Your task to perform on an android device: turn off picture-in-picture Image 0: 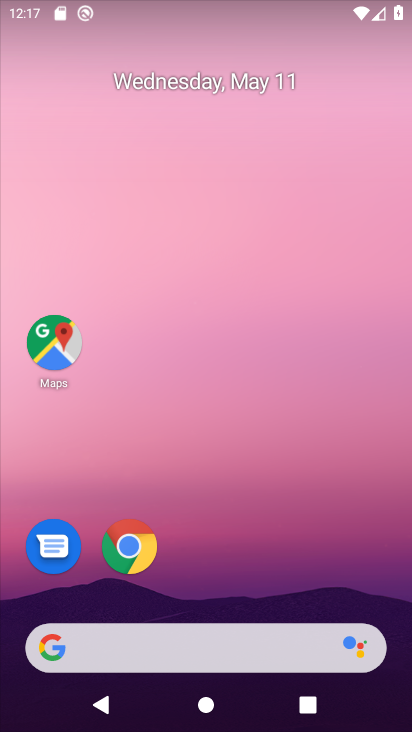
Step 0: drag from (266, 380) to (266, 277)
Your task to perform on an android device: turn off picture-in-picture Image 1: 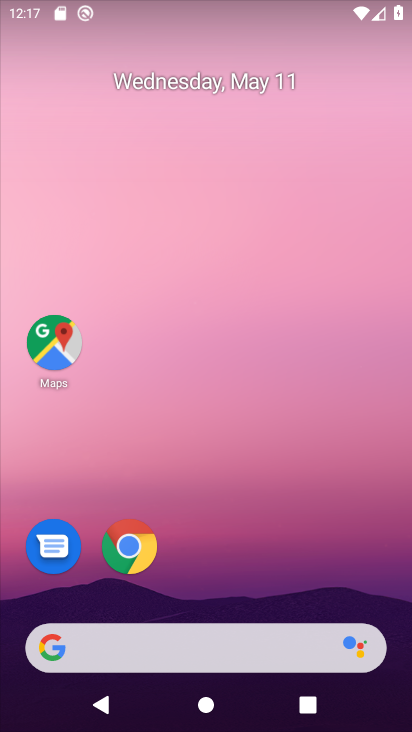
Step 1: drag from (223, 592) to (252, 287)
Your task to perform on an android device: turn off picture-in-picture Image 2: 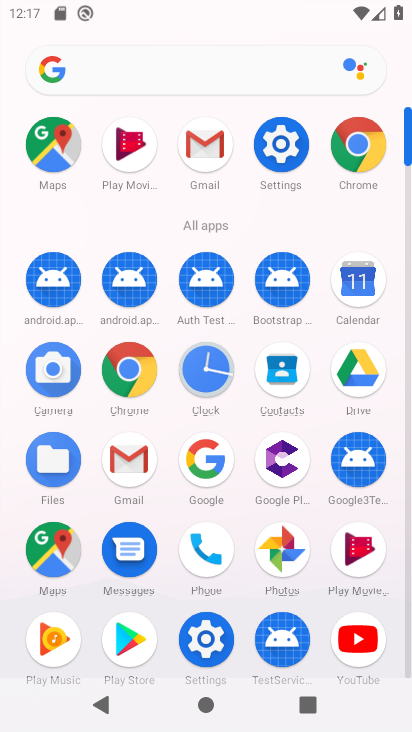
Step 2: click (262, 139)
Your task to perform on an android device: turn off picture-in-picture Image 3: 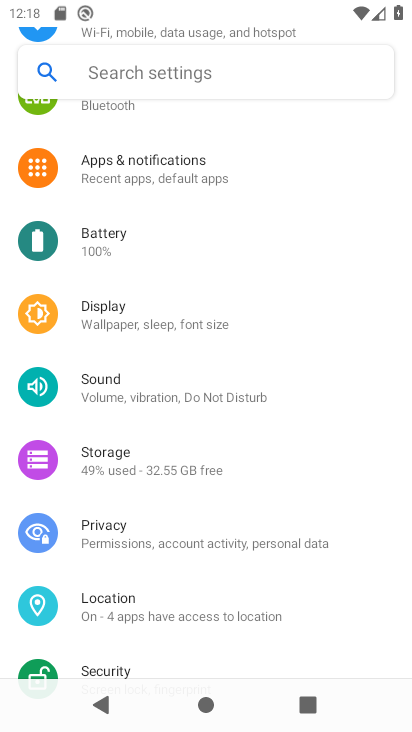
Step 3: click (152, 163)
Your task to perform on an android device: turn off picture-in-picture Image 4: 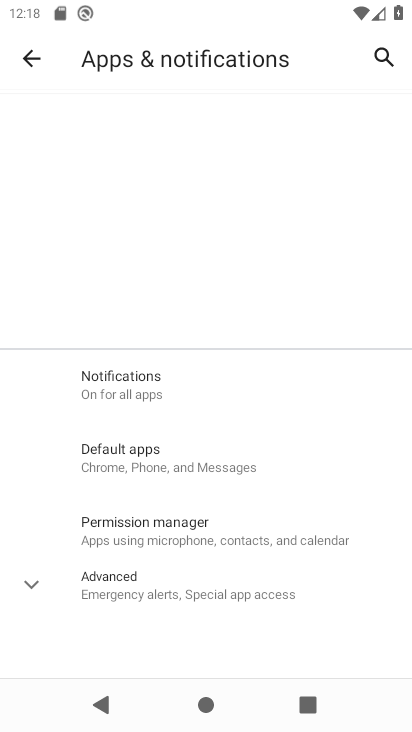
Step 4: click (200, 571)
Your task to perform on an android device: turn off picture-in-picture Image 5: 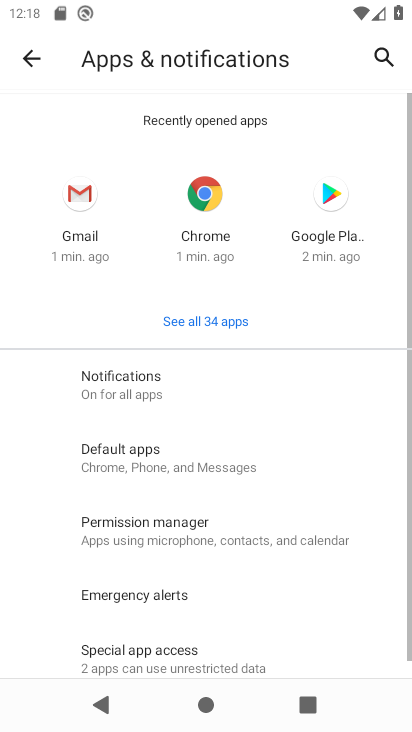
Step 5: click (204, 591)
Your task to perform on an android device: turn off picture-in-picture Image 6: 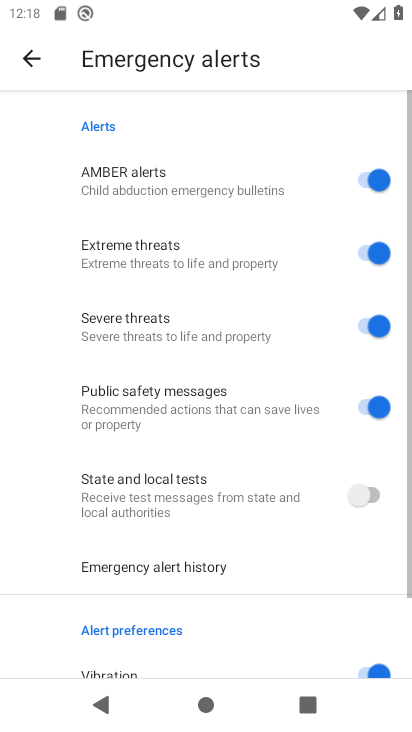
Step 6: press back button
Your task to perform on an android device: turn off picture-in-picture Image 7: 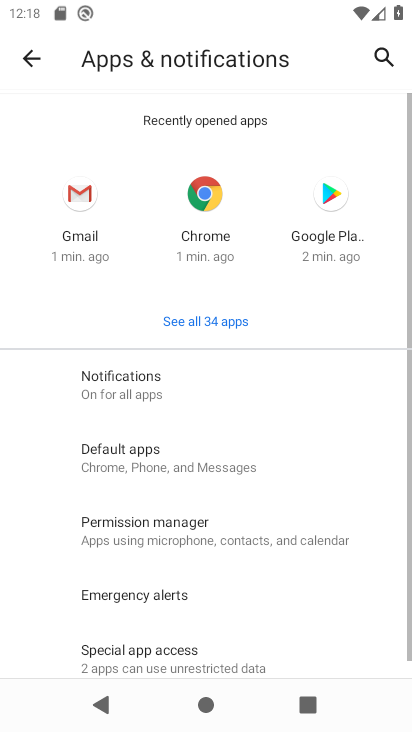
Step 7: drag from (195, 567) to (229, 309)
Your task to perform on an android device: turn off picture-in-picture Image 8: 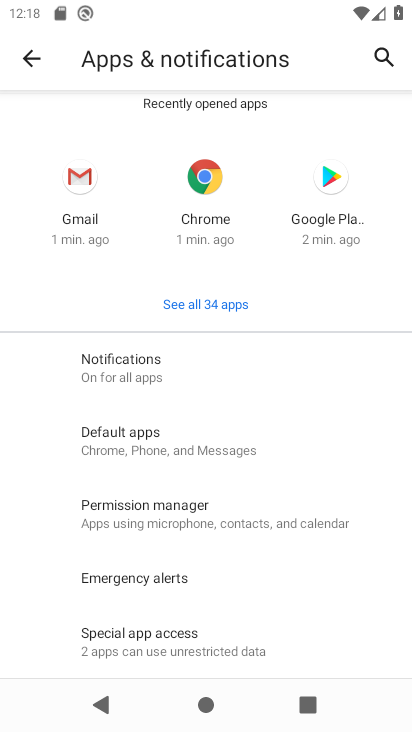
Step 8: click (154, 647)
Your task to perform on an android device: turn off picture-in-picture Image 9: 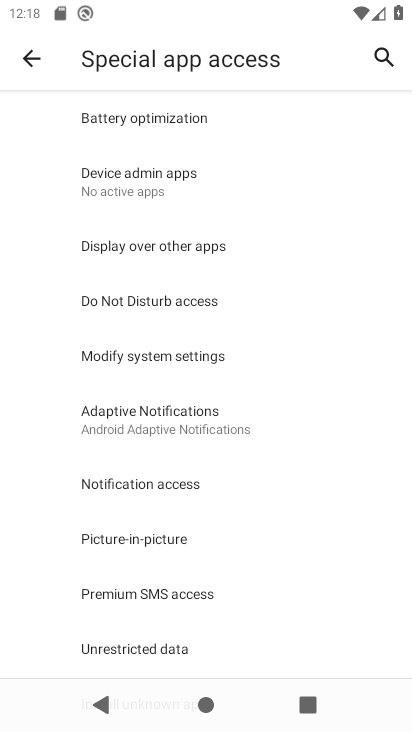
Step 9: click (174, 537)
Your task to perform on an android device: turn off picture-in-picture Image 10: 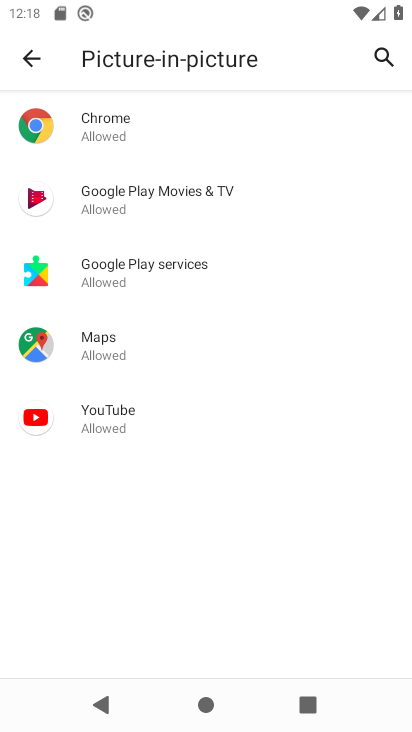
Step 10: click (94, 400)
Your task to perform on an android device: turn off picture-in-picture Image 11: 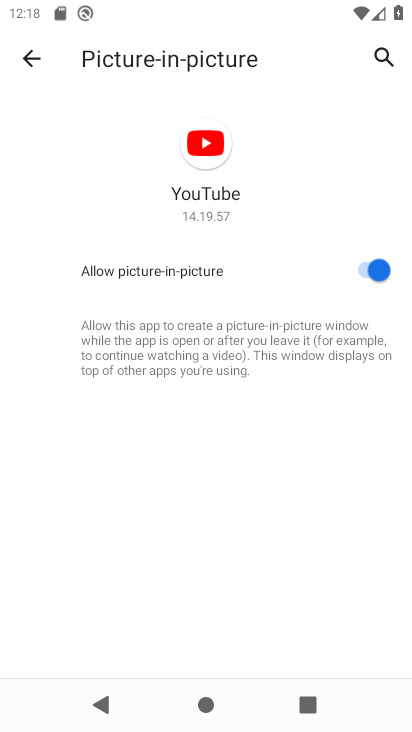
Step 11: click (359, 273)
Your task to perform on an android device: turn off picture-in-picture Image 12: 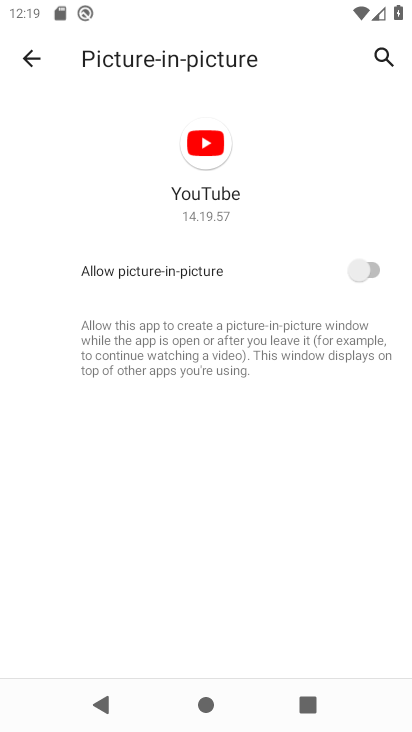
Step 12: task complete